Your task to perform on an android device: open app "PlayWell" (install if not already installed) Image 0: 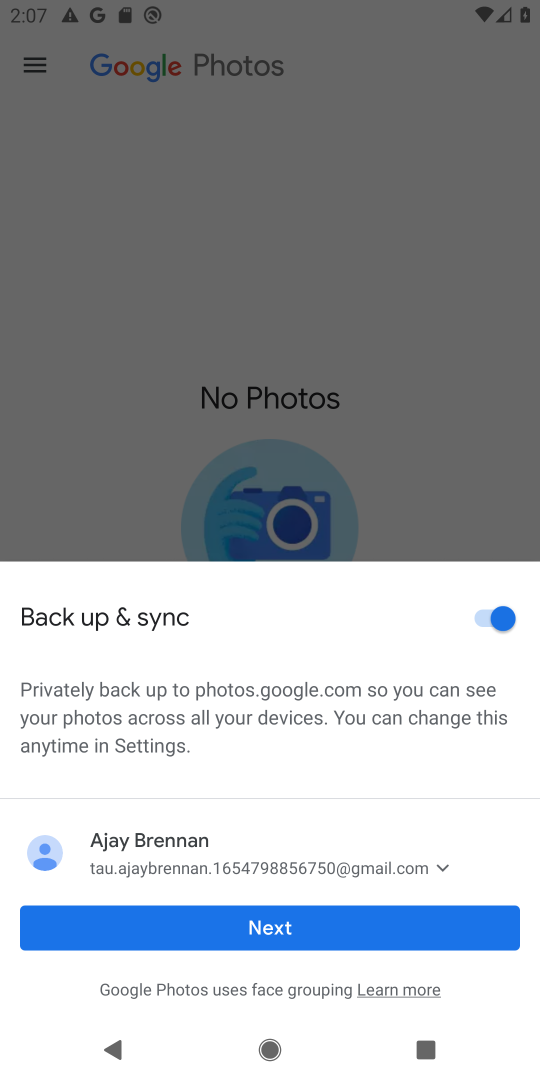
Step 0: press home button
Your task to perform on an android device: open app "PlayWell" (install if not already installed) Image 1: 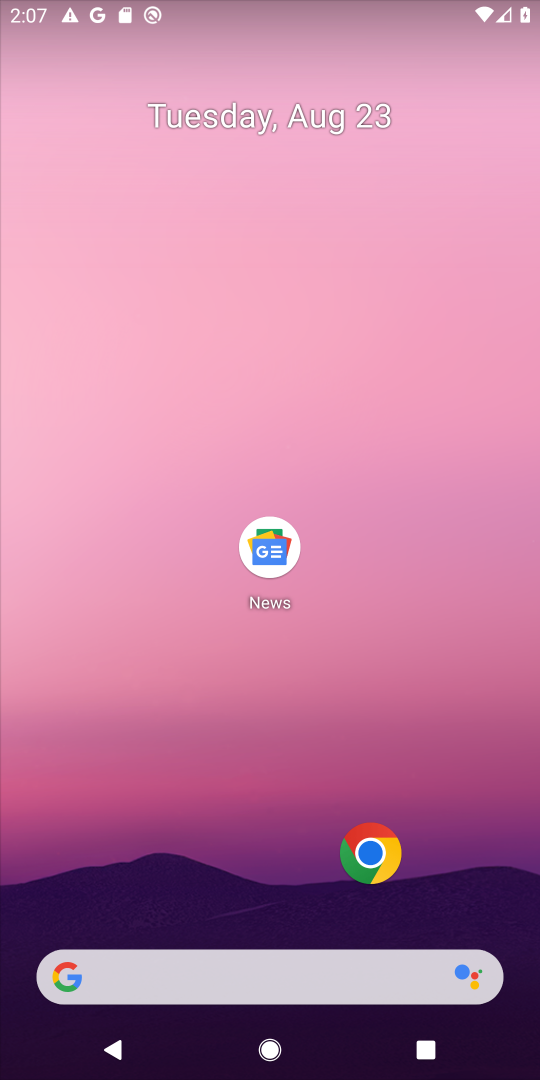
Step 1: drag from (512, 945) to (436, 128)
Your task to perform on an android device: open app "PlayWell" (install if not already installed) Image 2: 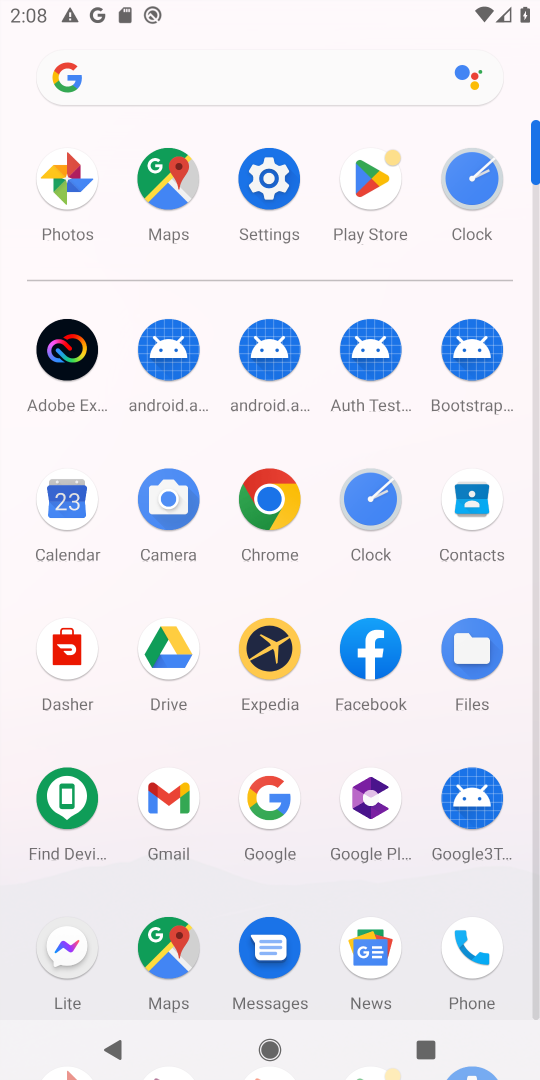
Step 2: click (535, 975)
Your task to perform on an android device: open app "PlayWell" (install if not already installed) Image 3: 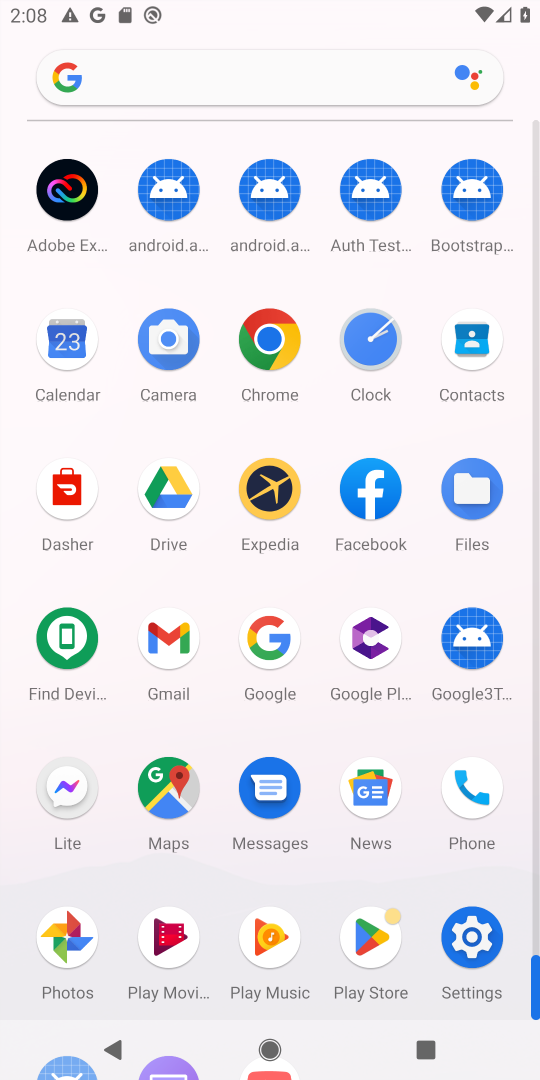
Step 3: click (373, 936)
Your task to perform on an android device: open app "PlayWell" (install if not already installed) Image 4: 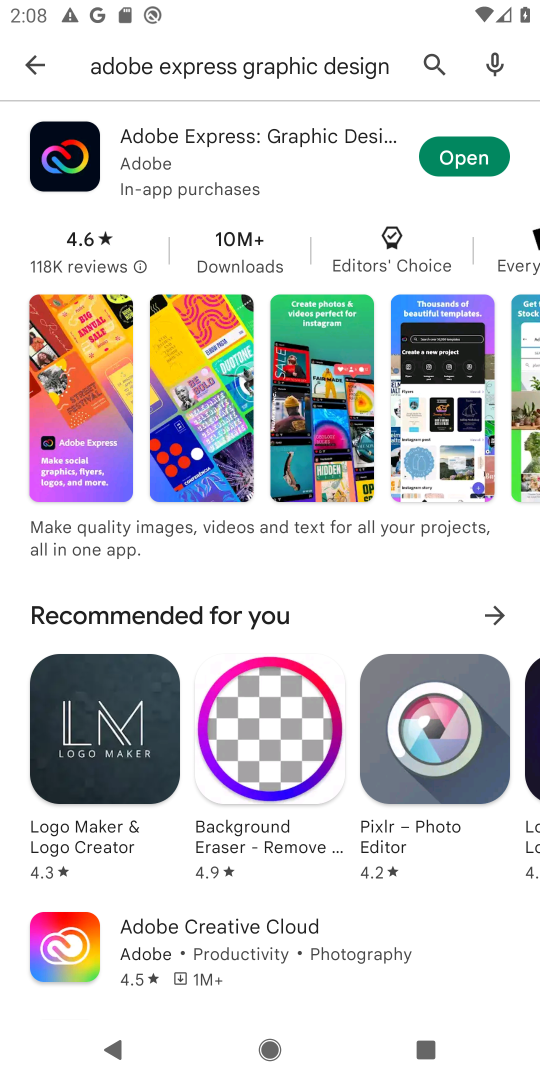
Step 4: click (429, 65)
Your task to perform on an android device: open app "PlayWell" (install if not already installed) Image 5: 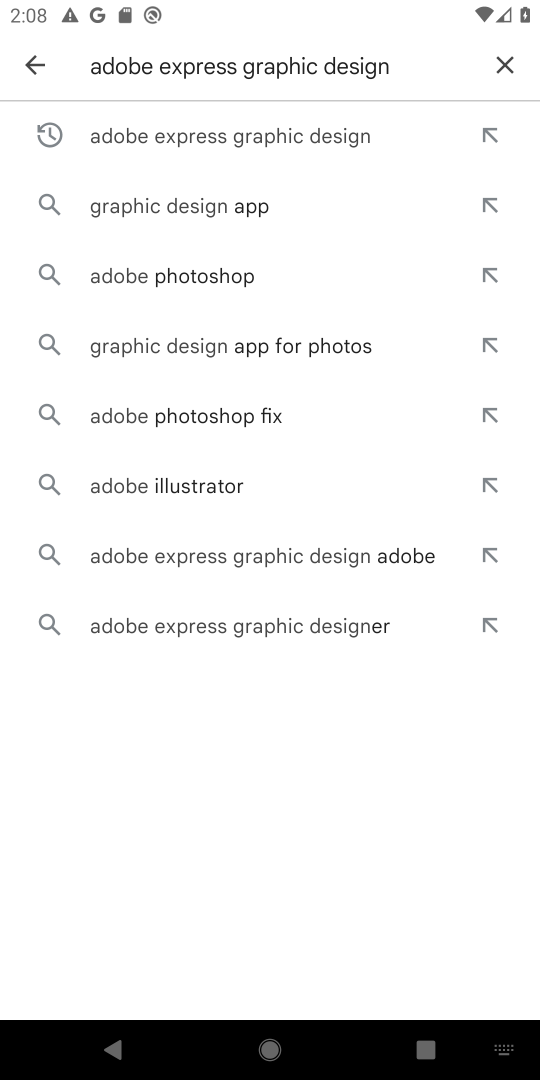
Step 5: click (502, 60)
Your task to perform on an android device: open app "PlayWell" (install if not already installed) Image 6: 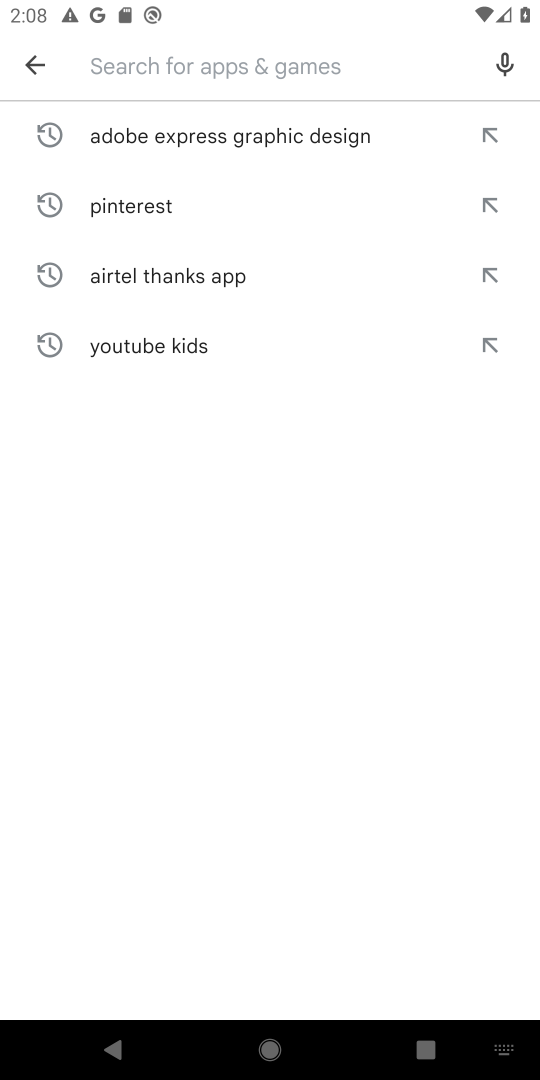
Step 6: type "PlayWell"
Your task to perform on an android device: open app "PlayWell" (install if not already installed) Image 7: 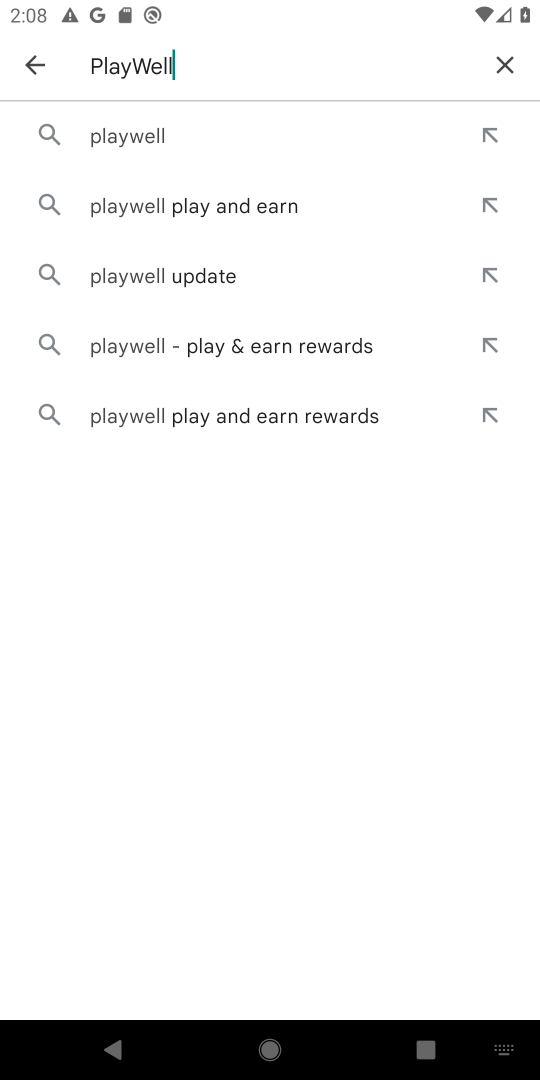
Step 7: click (128, 141)
Your task to perform on an android device: open app "PlayWell" (install if not already installed) Image 8: 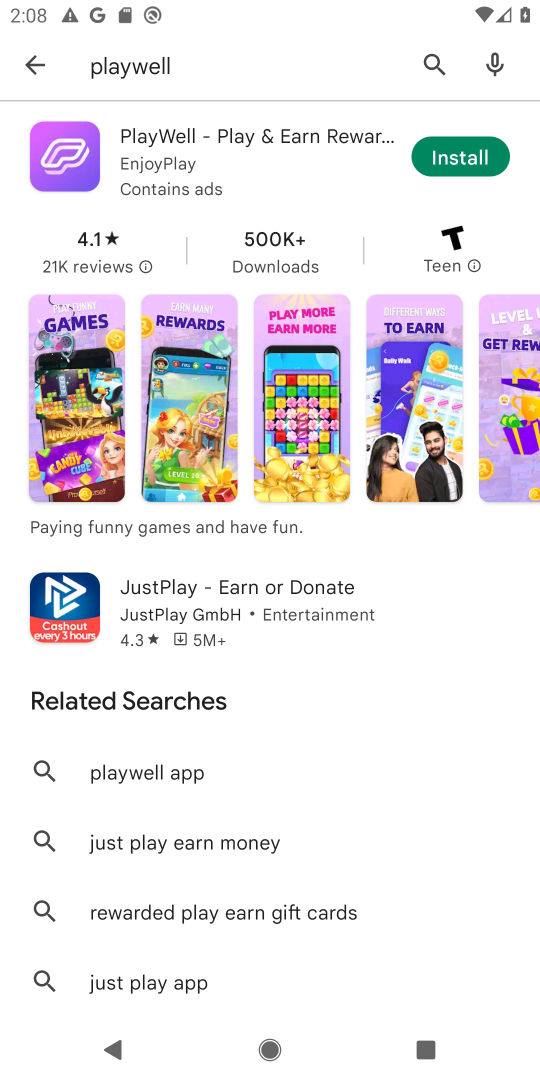
Step 8: click (198, 153)
Your task to perform on an android device: open app "PlayWell" (install if not already installed) Image 9: 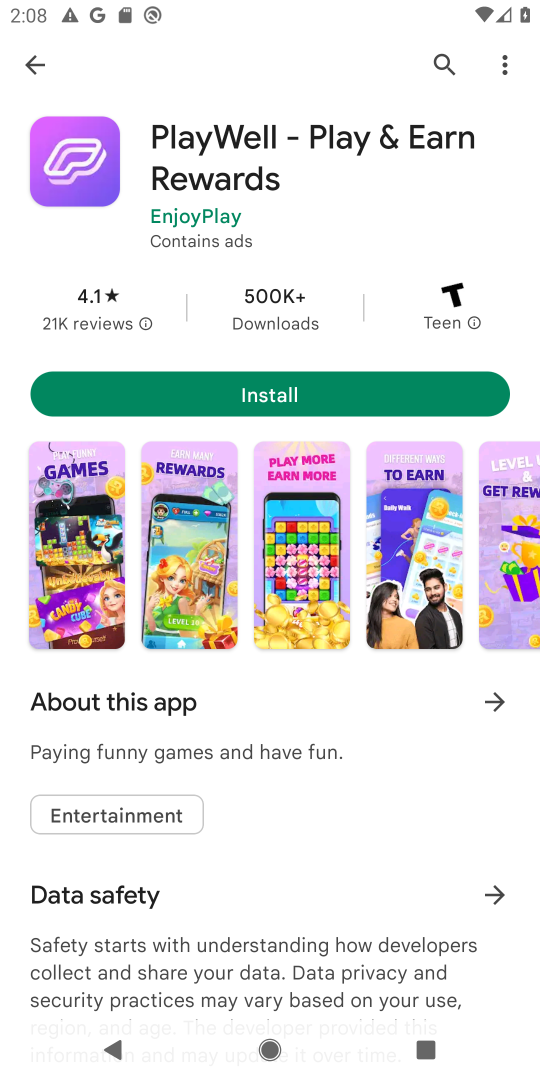
Step 9: click (264, 395)
Your task to perform on an android device: open app "PlayWell" (install if not already installed) Image 10: 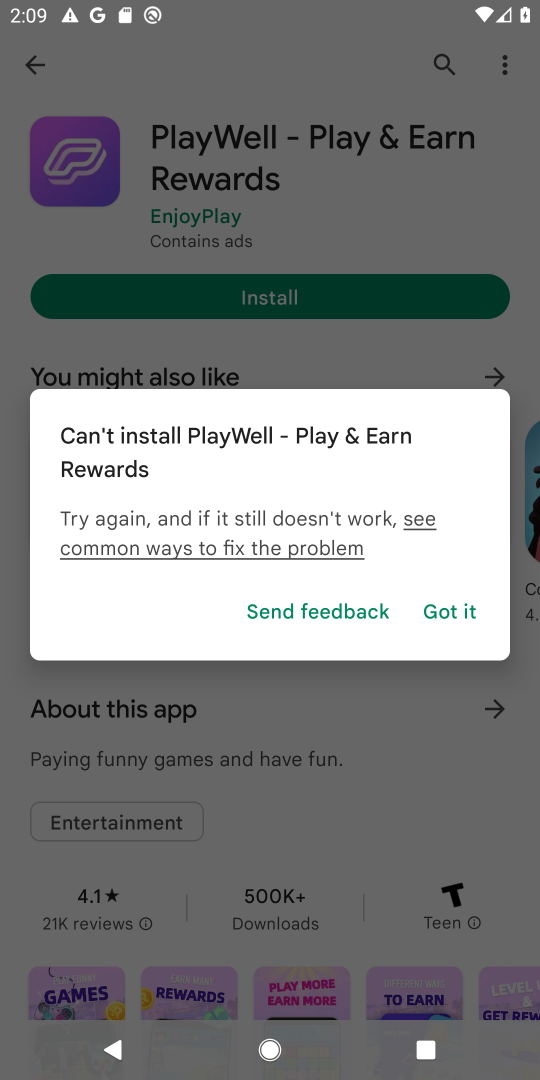
Step 10: click (445, 612)
Your task to perform on an android device: open app "PlayWell" (install if not already installed) Image 11: 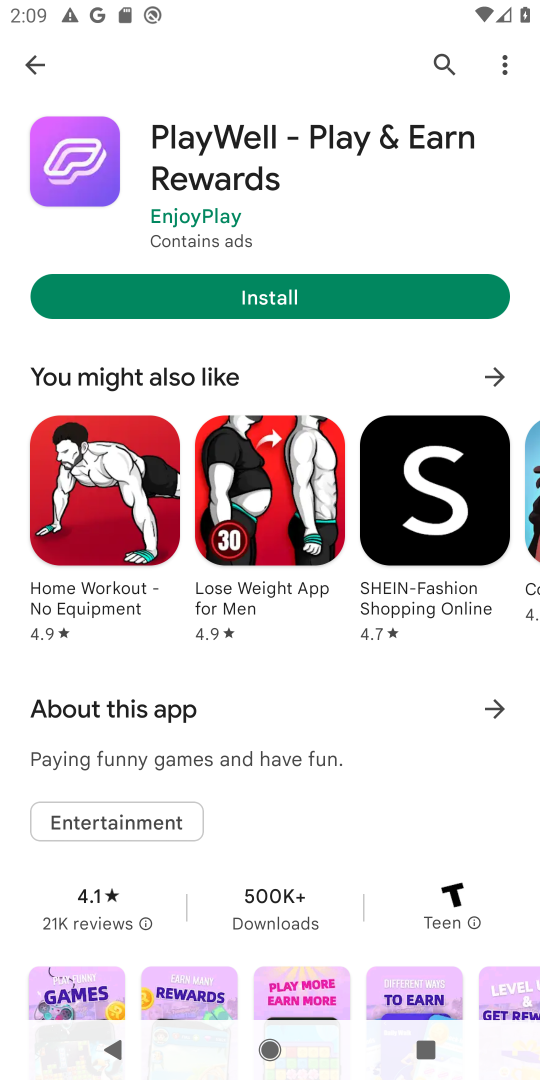
Step 11: click (263, 292)
Your task to perform on an android device: open app "PlayWell" (install if not already installed) Image 12: 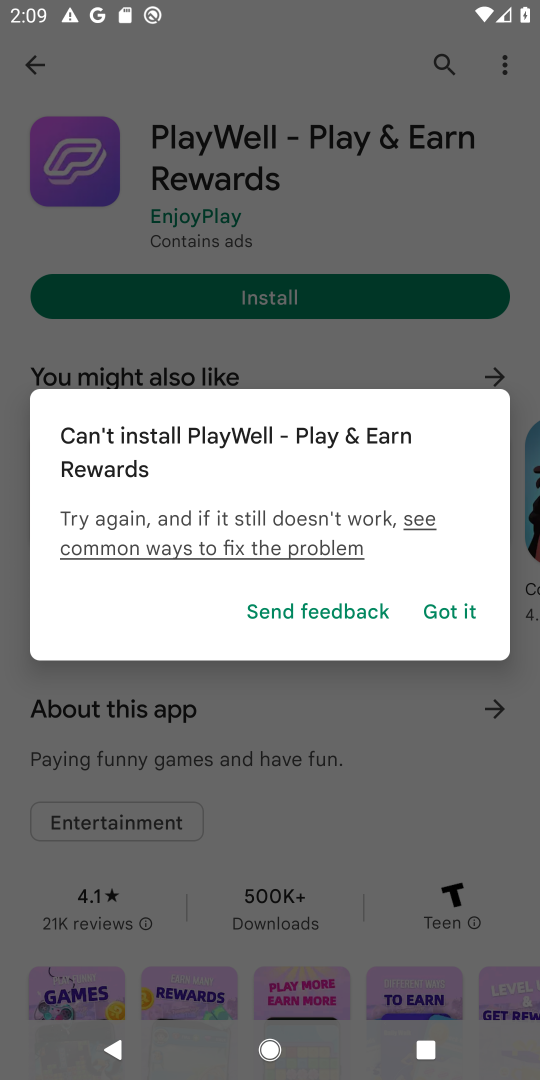
Step 12: click (453, 613)
Your task to perform on an android device: open app "PlayWell" (install if not already installed) Image 13: 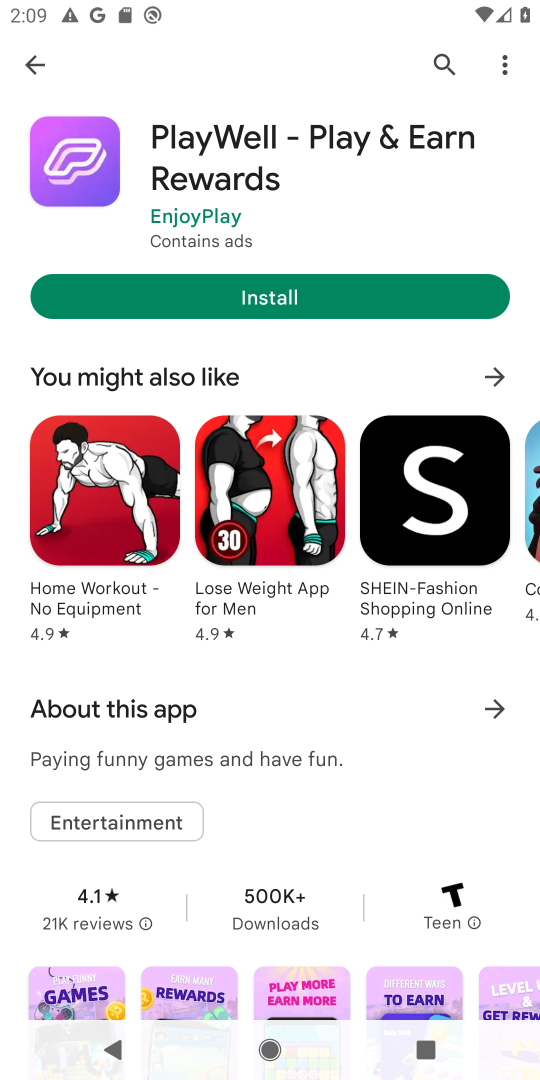
Step 13: task complete